Your task to perform on an android device: turn notification dots off Image 0: 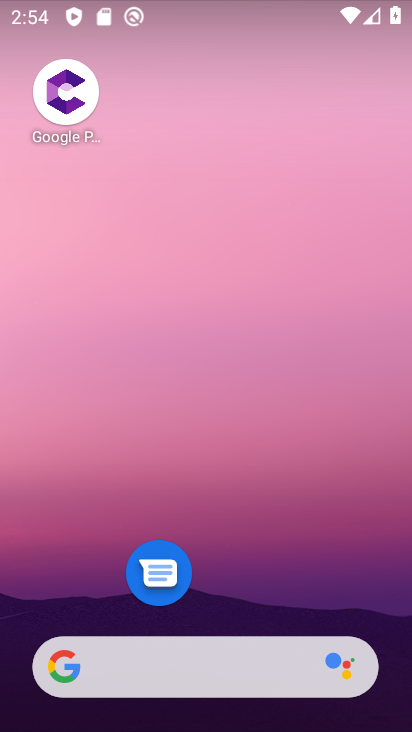
Step 0: drag from (229, 600) to (326, 94)
Your task to perform on an android device: turn notification dots off Image 1: 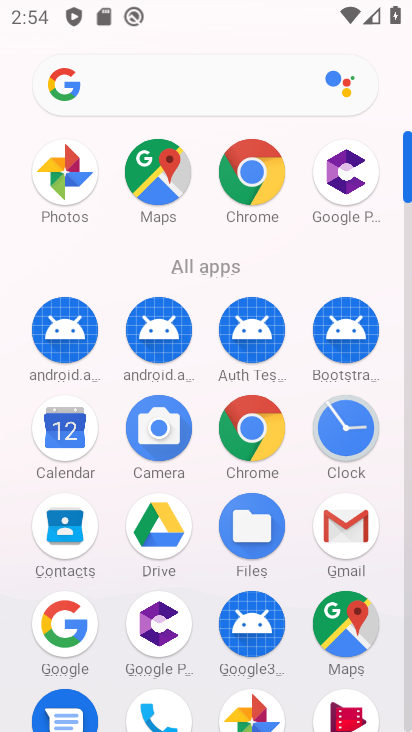
Step 1: drag from (226, 583) to (244, 271)
Your task to perform on an android device: turn notification dots off Image 2: 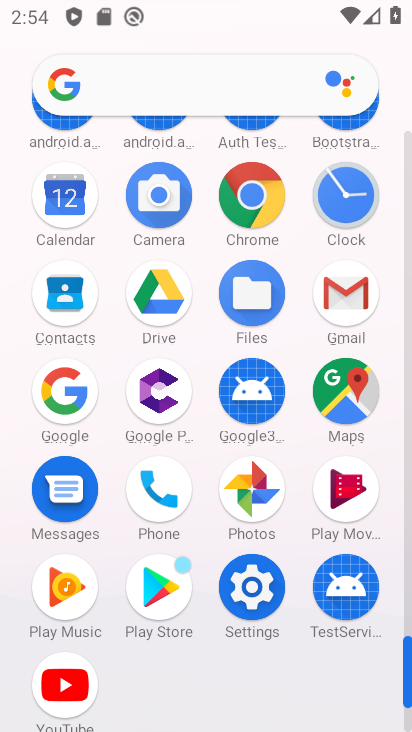
Step 2: click (254, 608)
Your task to perform on an android device: turn notification dots off Image 3: 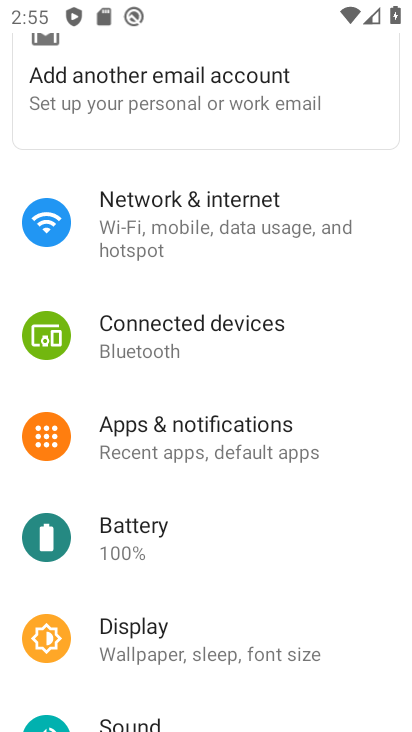
Step 3: click (166, 446)
Your task to perform on an android device: turn notification dots off Image 4: 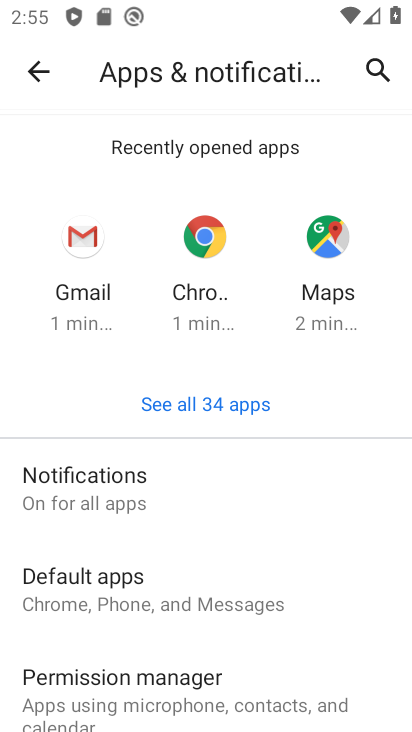
Step 4: drag from (139, 518) to (182, 381)
Your task to perform on an android device: turn notification dots off Image 5: 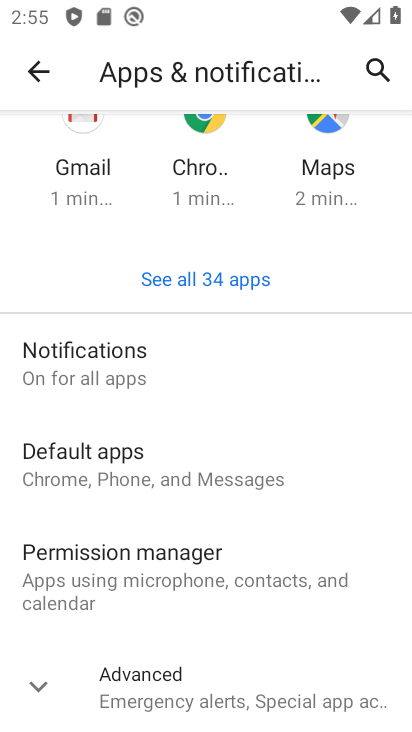
Step 5: click (111, 377)
Your task to perform on an android device: turn notification dots off Image 6: 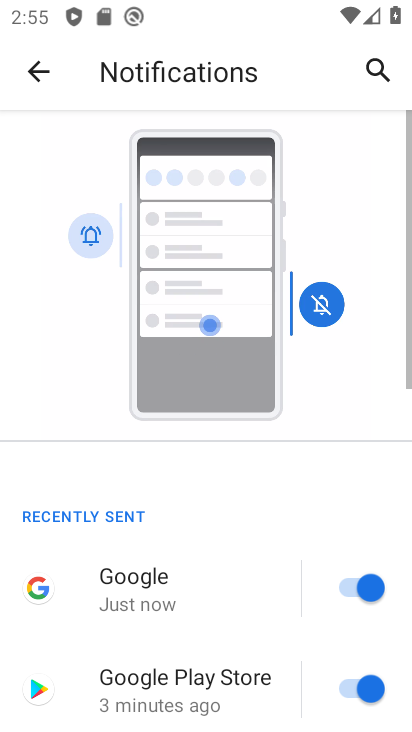
Step 6: drag from (148, 562) to (240, 254)
Your task to perform on an android device: turn notification dots off Image 7: 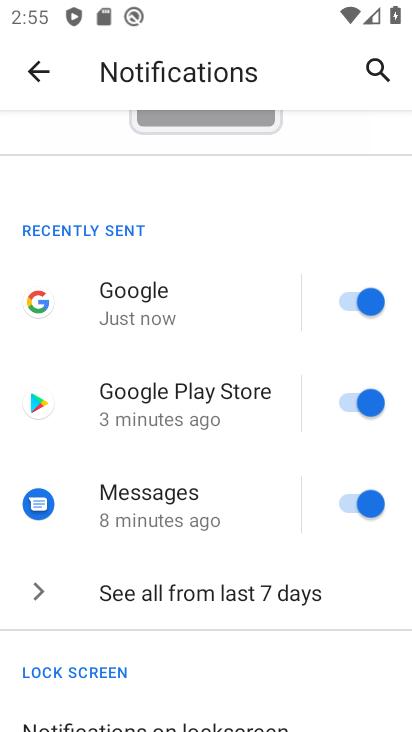
Step 7: drag from (210, 599) to (249, 344)
Your task to perform on an android device: turn notification dots off Image 8: 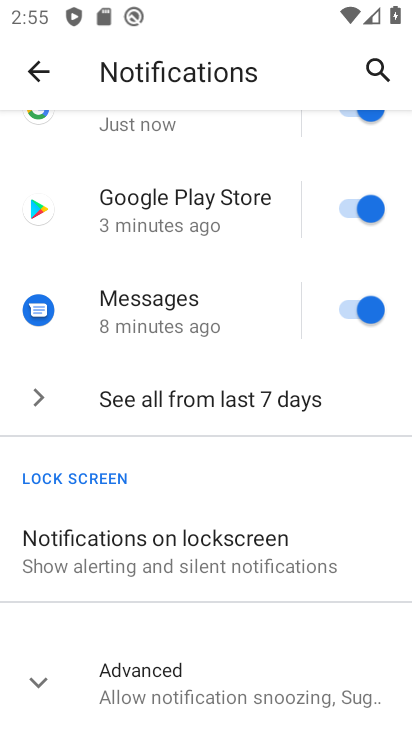
Step 8: drag from (200, 631) to (220, 528)
Your task to perform on an android device: turn notification dots off Image 9: 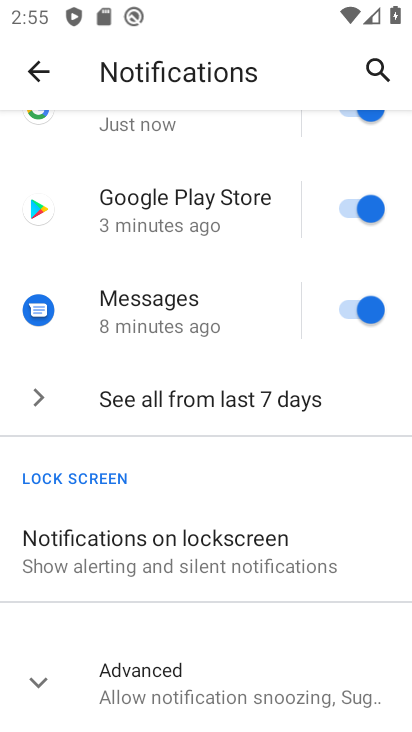
Step 9: click (140, 694)
Your task to perform on an android device: turn notification dots off Image 10: 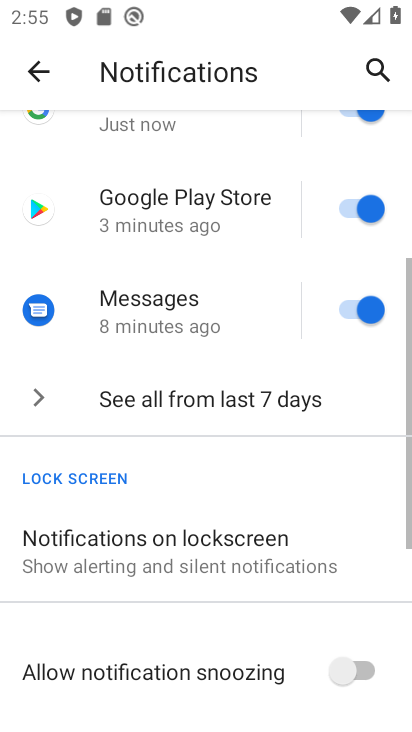
Step 10: drag from (140, 660) to (195, 347)
Your task to perform on an android device: turn notification dots off Image 11: 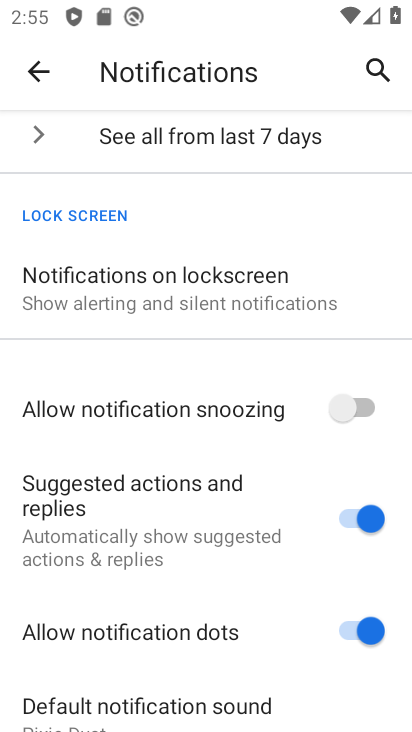
Step 11: click (352, 631)
Your task to perform on an android device: turn notification dots off Image 12: 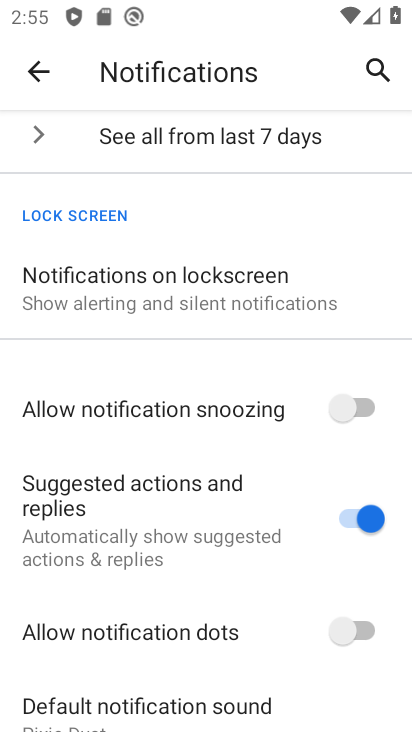
Step 12: task complete